Your task to perform on an android device: check storage Image 0: 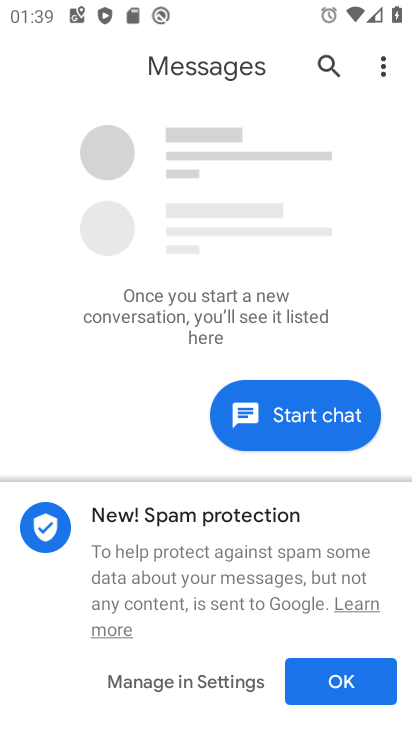
Step 0: press home button
Your task to perform on an android device: check storage Image 1: 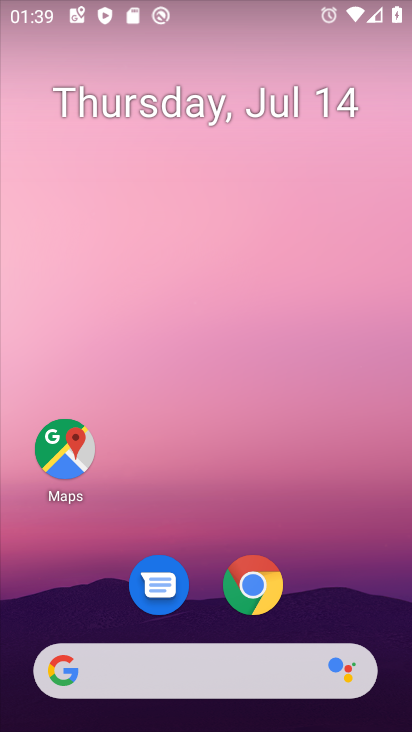
Step 1: drag from (345, 571) to (301, 28)
Your task to perform on an android device: check storage Image 2: 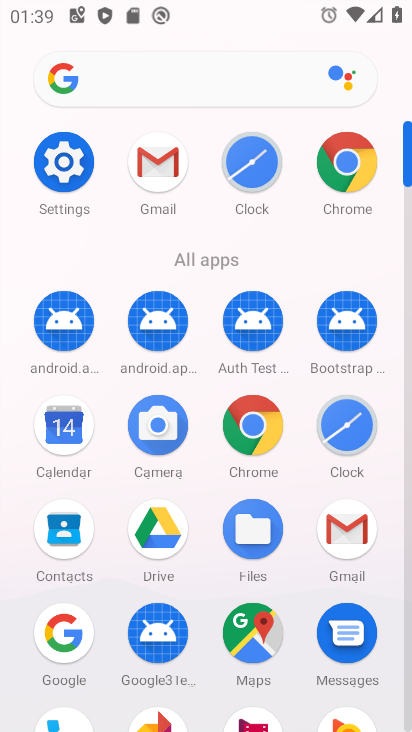
Step 2: click (76, 165)
Your task to perform on an android device: check storage Image 3: 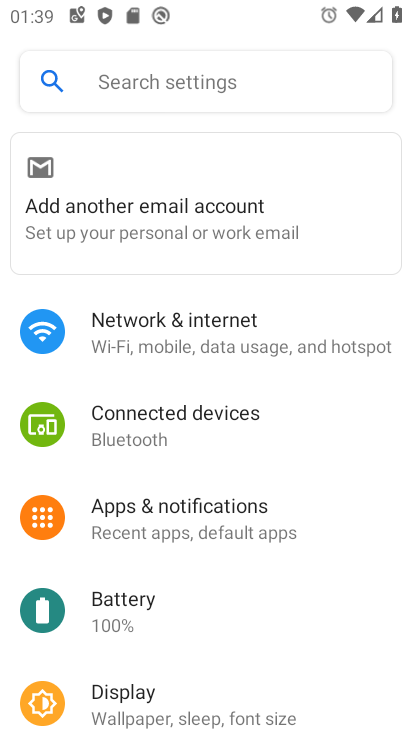
Step 3: drag from (177, 593) to (212, 93)
Your task to perform on an android device: check storage Image 4: 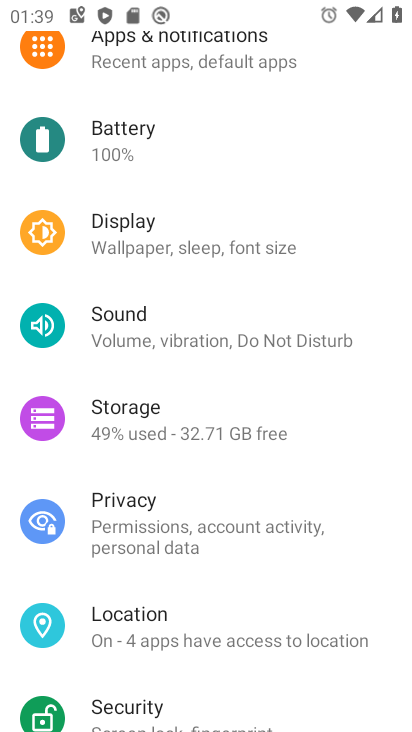
Step 4: click (217, 417)
Your task to perform on an android device: check storage Image 5: 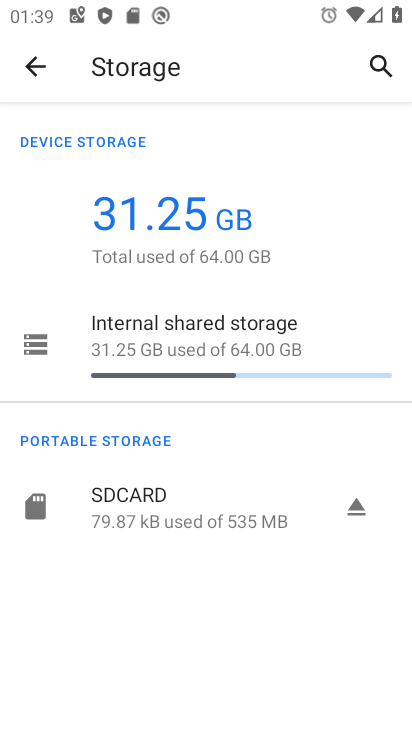
Step 5: task complete